Your task to perform on an android device: Open Google Chrome and open the bookmarks view Image 0: 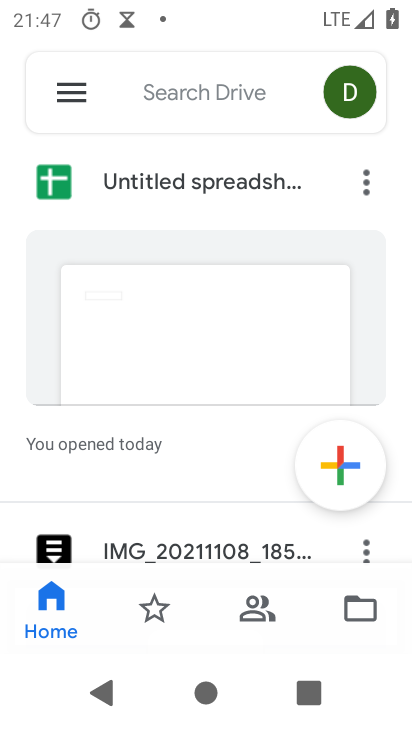
Step 0: press home button
Your task to perform on an android device: Open Google Chrome and open the bookmarks view Image 1: 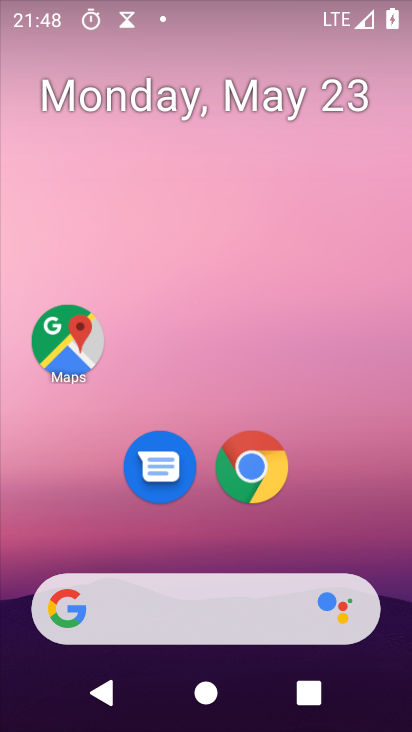
Step 1: click (254, 459)
Your task to perform on an android device: Open Google Chrome and open the bookmarks view Image 2: 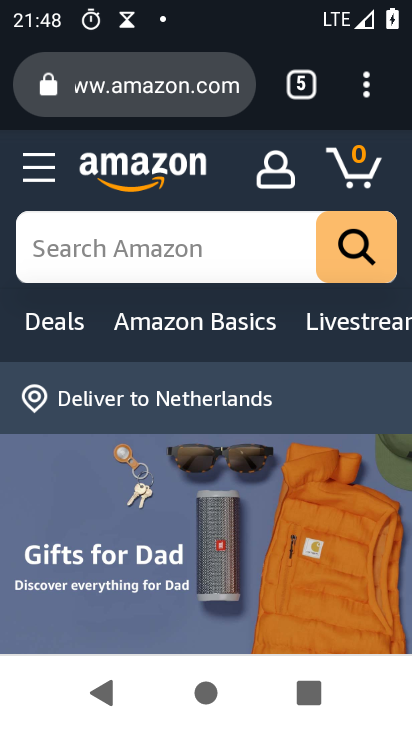
Step 2: click (364, 93)
Your task to perform on an android device: Open Google Chrome and open the bookmarks view Image 3: 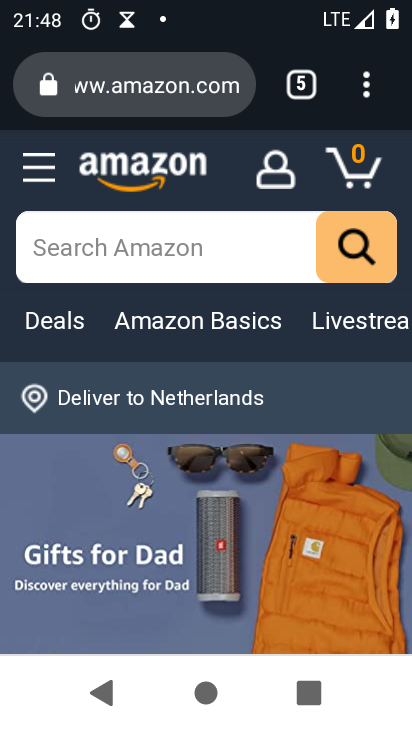
Step 3: click (372, 86)
Your task to perform on an android device: Open Google Chrome and open the bookmarks view Image 4: 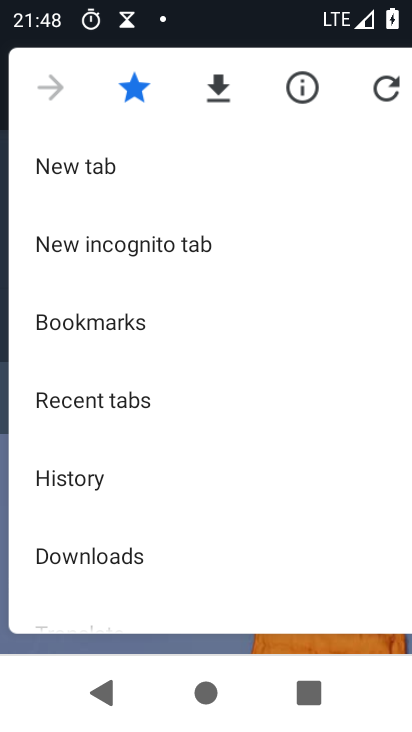
Step 4: click (165, 315)
Your task to perform on an android device: Open Google Chrome and open the bookmarks view Image 5: 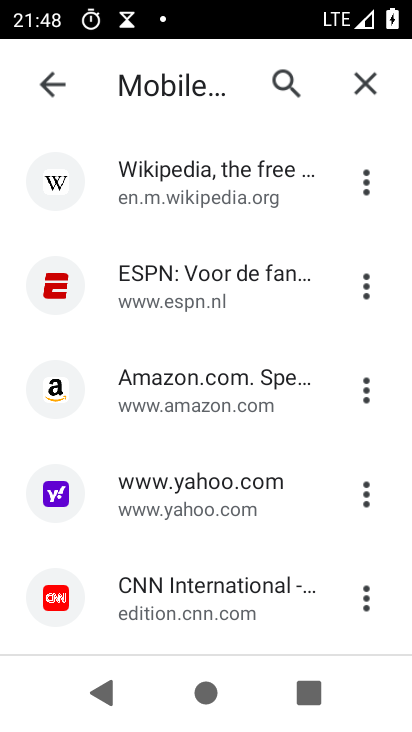
Step 5: click (176, 296)
Your task to perform on an android device: Open Google Chrome and open the bookmarks view Image 6: 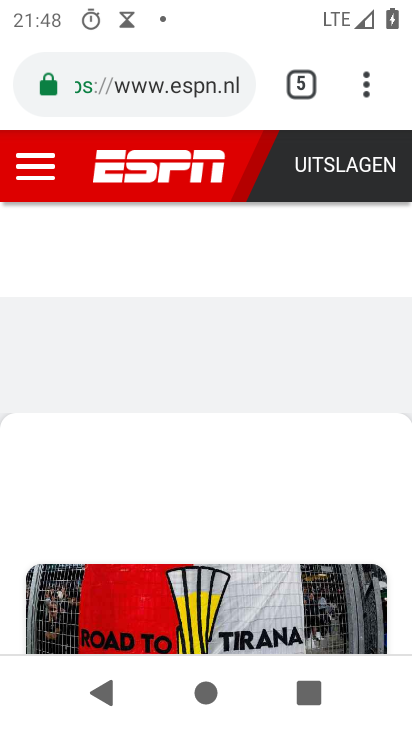
Step 6: task complete